Your task to perform on an android device: delete a single message in the gmail app Image 0: 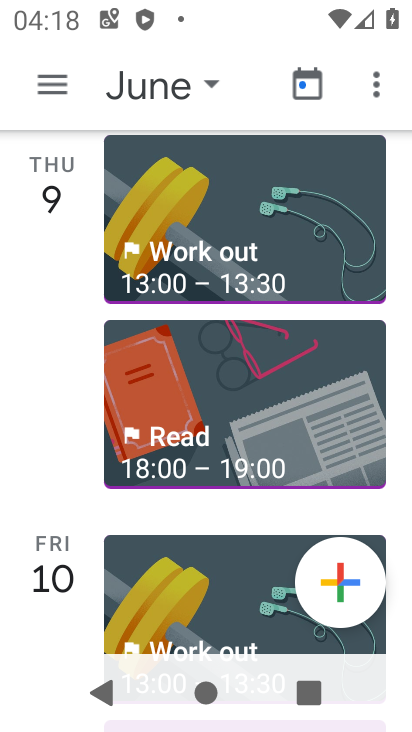
Step 0: press home button
Your task to perform on an android device: delete a single message in the gmail app Image 1: 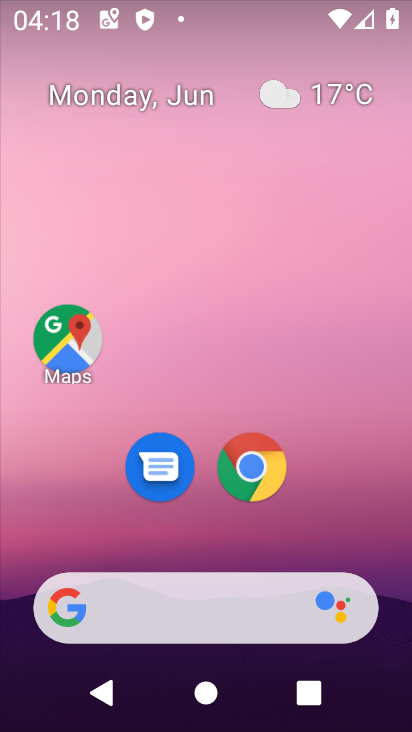
Step 1: drag from (191, 470) to (200, 12)
Your task to perform on an android device: delete a single message in the gmail app Image 2: 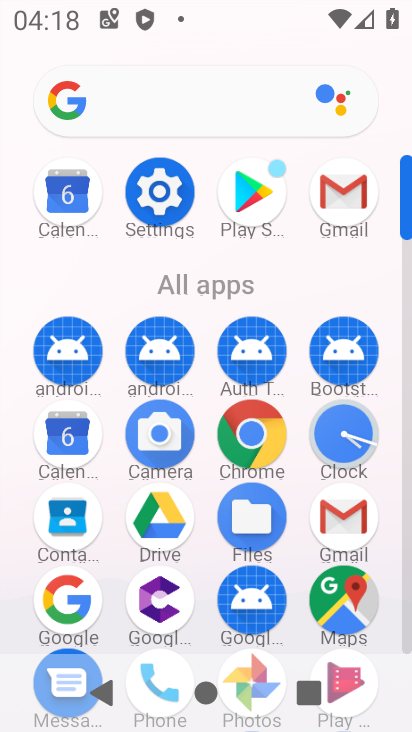
Step 2: click (352, 516)
Your task to perform on an android device: delete a single message in the gmail app Image 3: 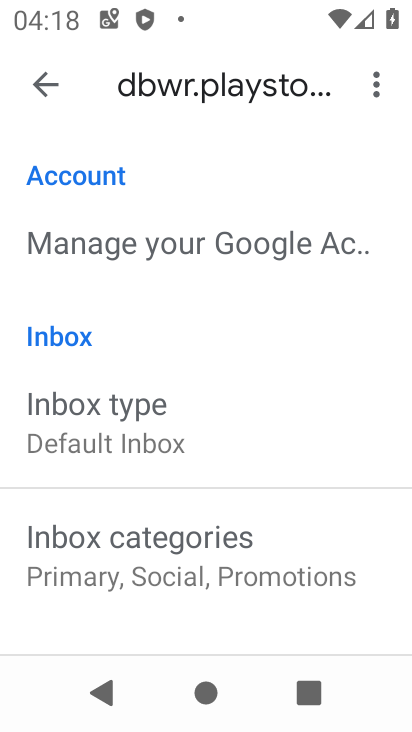
Step 3: click (41, 75)
Your task to perform on an android device: delete a single message in the gmail app Image 4: 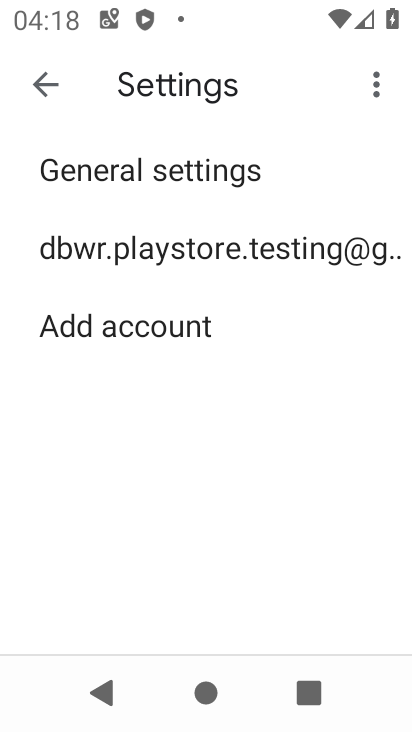
Step 4: click (41, 75)
Your task to perform on an android device: delete a single message in the gmail app Image 5: 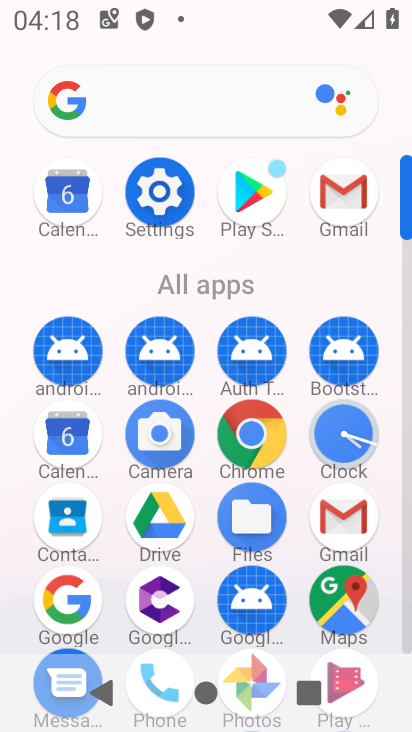
Step 5: click (362, 522)
Your task to perform on an android device: delete a single message in the gmail app Image 6: 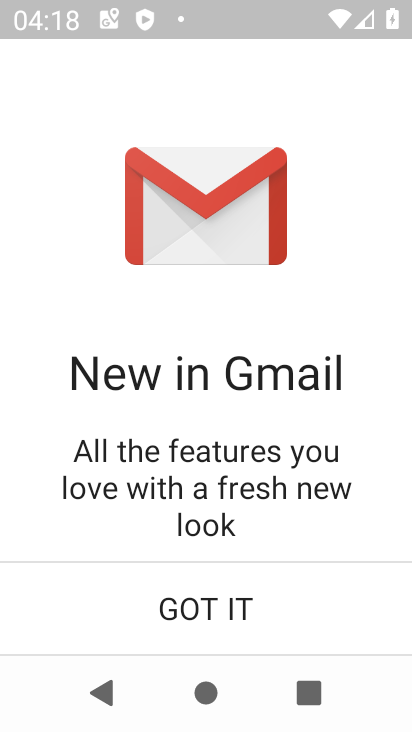
Step 6: click (231, 617)
Your task to perform on an android device: delete a single message in the gmail app Image 7: 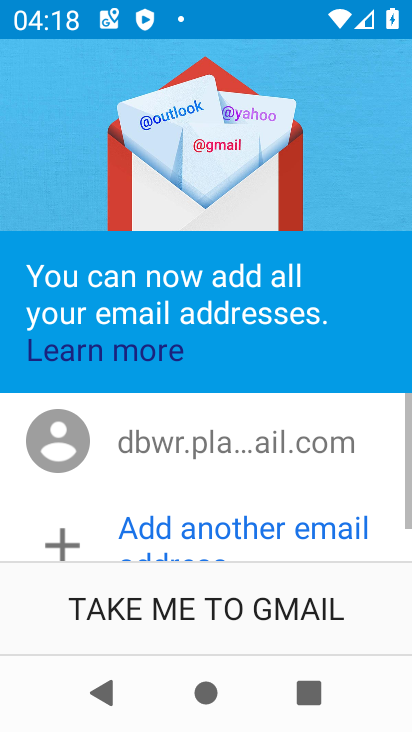
Step 7: click (232, 617)
Your task to perform on an android device: delete a single message in the gmail app Image 8: 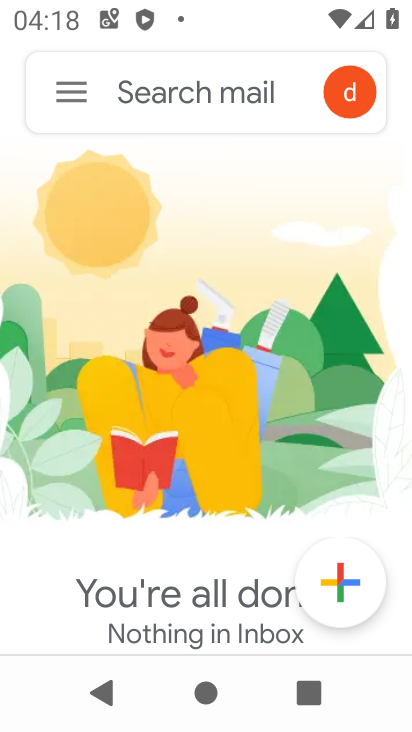
Step 8: click (73, 103)
Your task to perform on an android device: delete a single message in the gmail app Image 9: 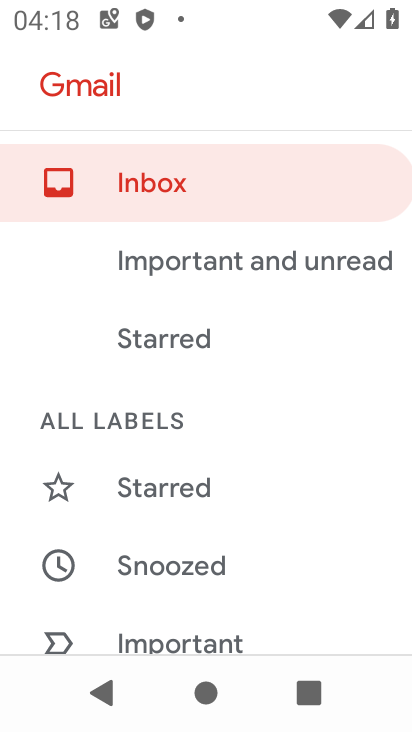
Step 9: drag from (184, 519) to (267, 193)
Your task to perform on an android device: delete a single message in the gmail app Image 10: 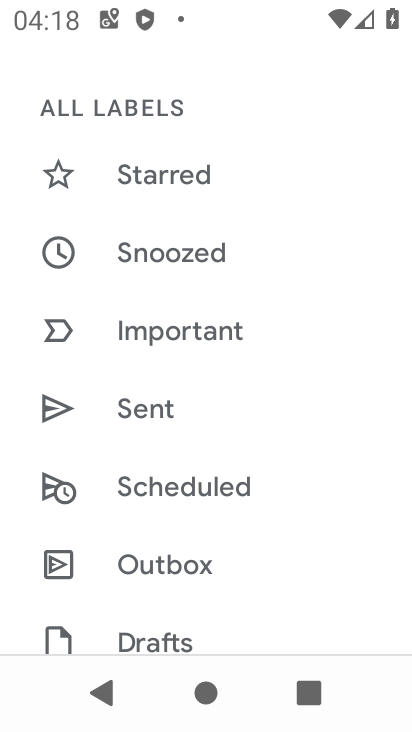
Step 10: drag from (219, 501) to (295, 66)
Your task to perform on an android device: delete a single message in the gmail app Image 11: 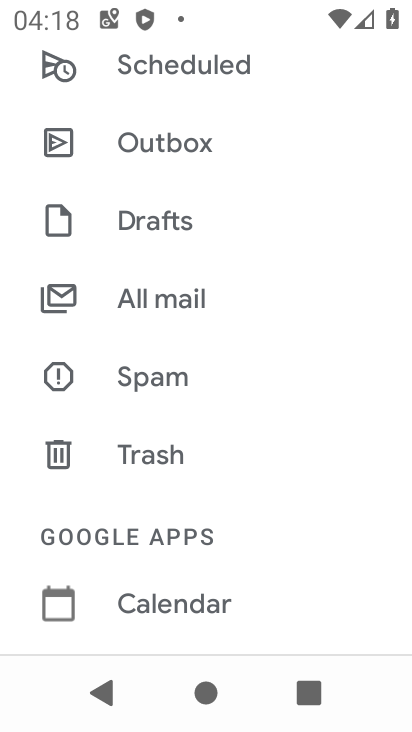
Step 11: click (171, 311)
Your task to perform on an android device: delete a single message in the gmail app Image 12: 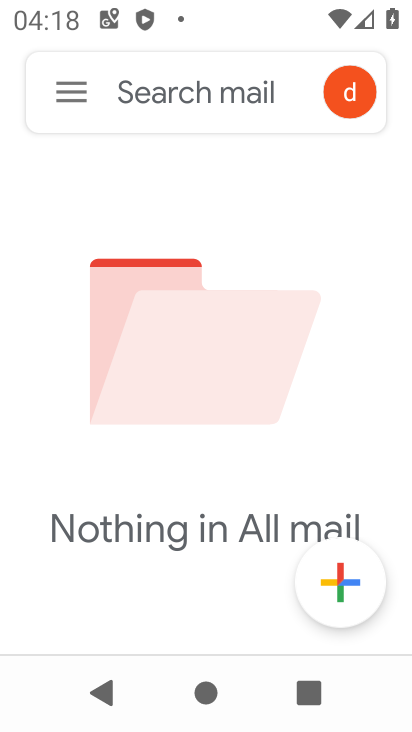
Step 12: task complete